Your task to perform on an android device: refresh tabs in the chrome app Image 0: 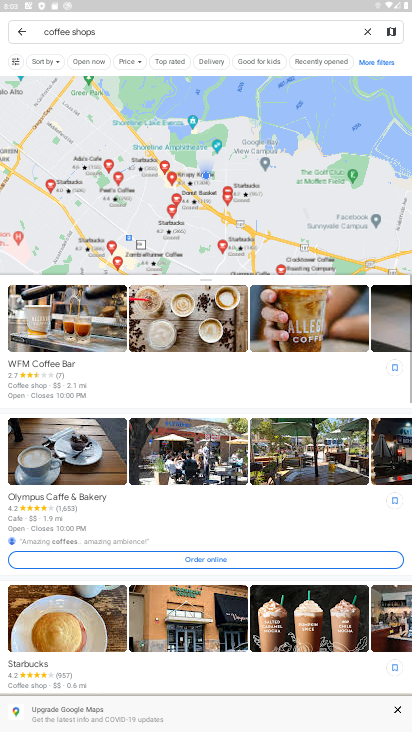
Step 0: press home button
Your task to perform on an android device: refresh tabs in the chrome app Image 1: 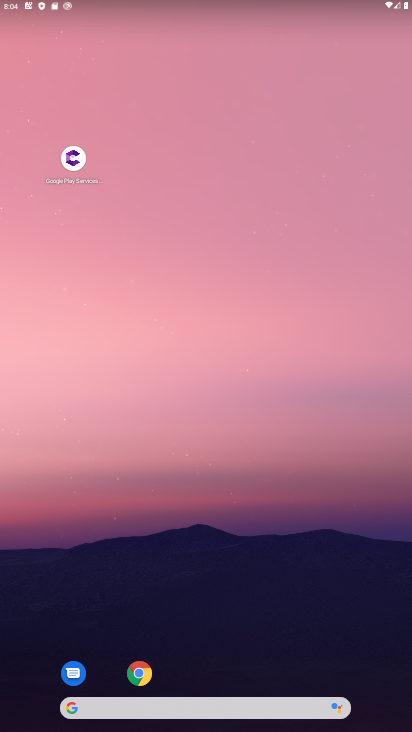
Step 1: click (143, 677)
Your task to perform on an android device: refresh tabs in the chrome app Image 2: 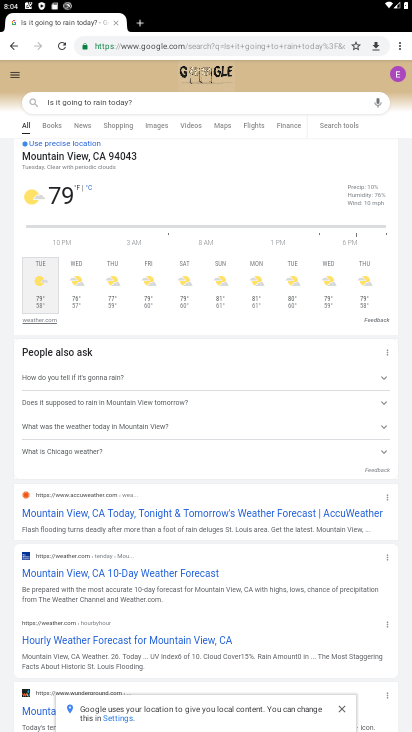
Step 2: click (60, 47)
Your task to perform on an android device: refresh tabs in the chrome app Image 3: 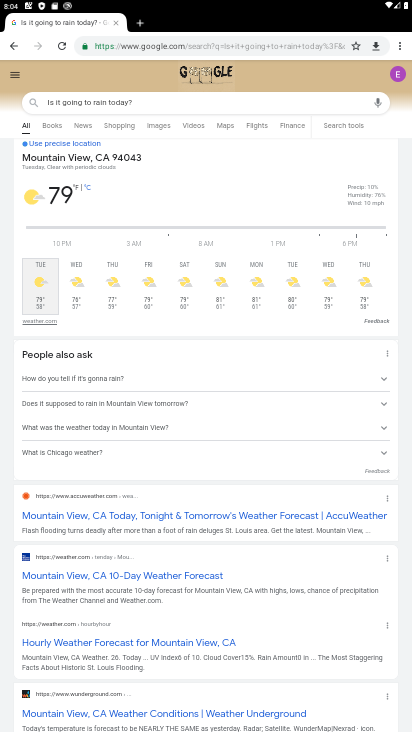
Step 3: task complete